Your task to perform on an android device: Clear the shopping cart on newegg. Image 0: 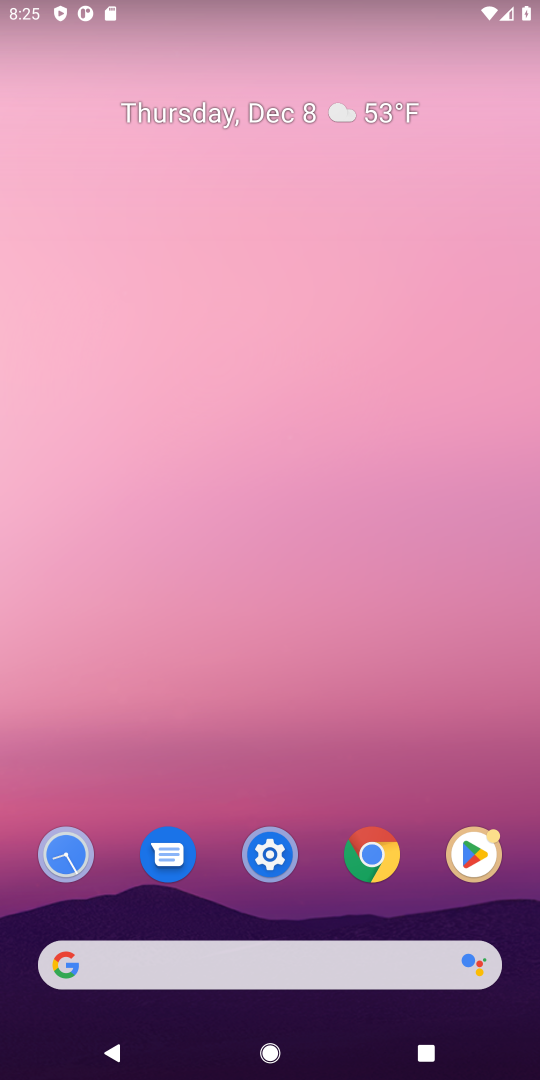
Step 0: press home button
Your task to perform on an android device: Clear the shopping cart on newegg. Image 1: 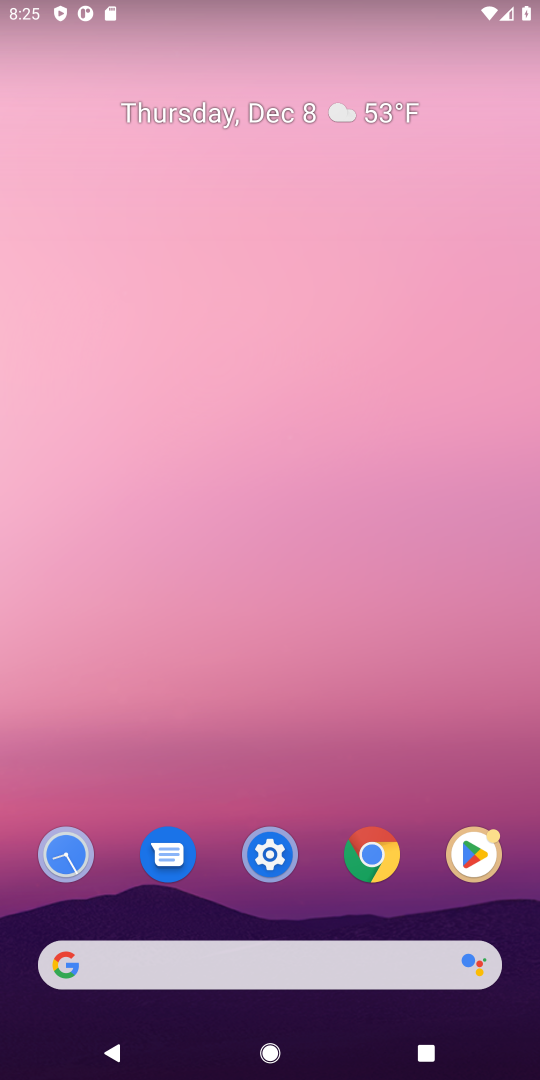
Step 1: click (87, 964)
Your task to perform on an android device: Clear the shopping cart on newegg. Image 2: 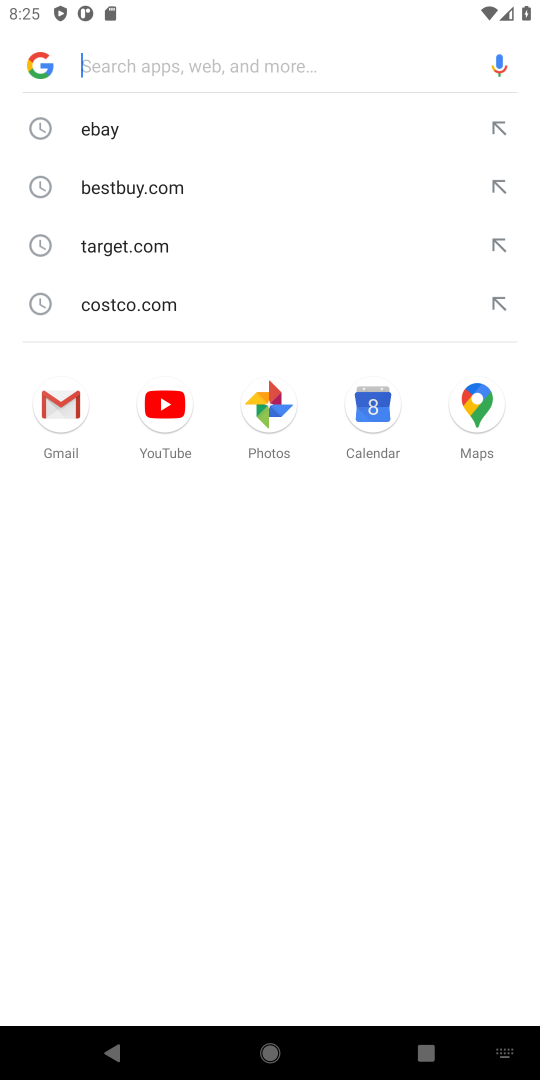
Step 2: type "newegg"
Your task to perform on an android device: Clear the shopping cart on newegg. Image 3: 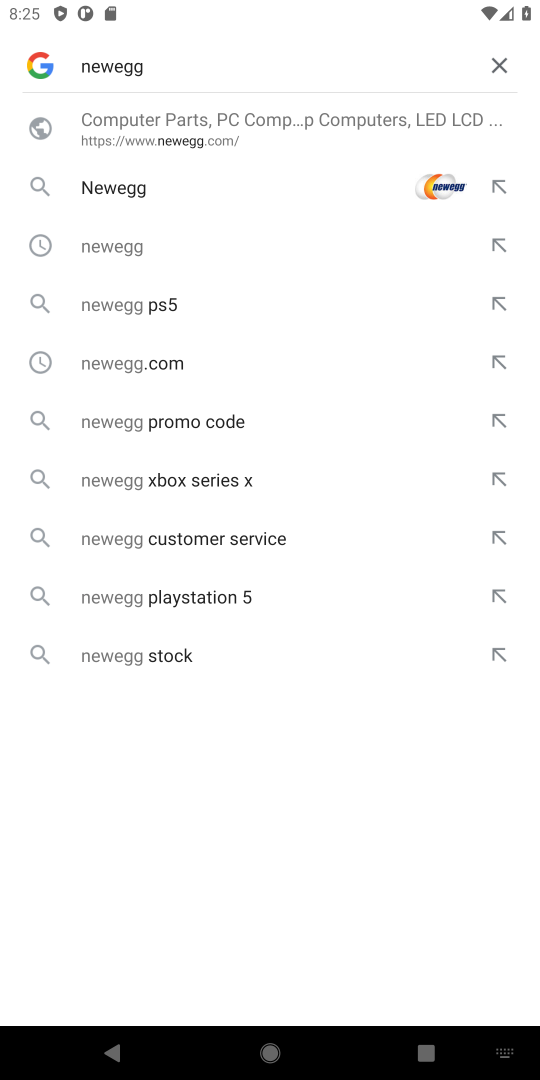
Step 3: press enter
Your task to perform on an android device: Clear the shopping cart on newegg. Image 4: 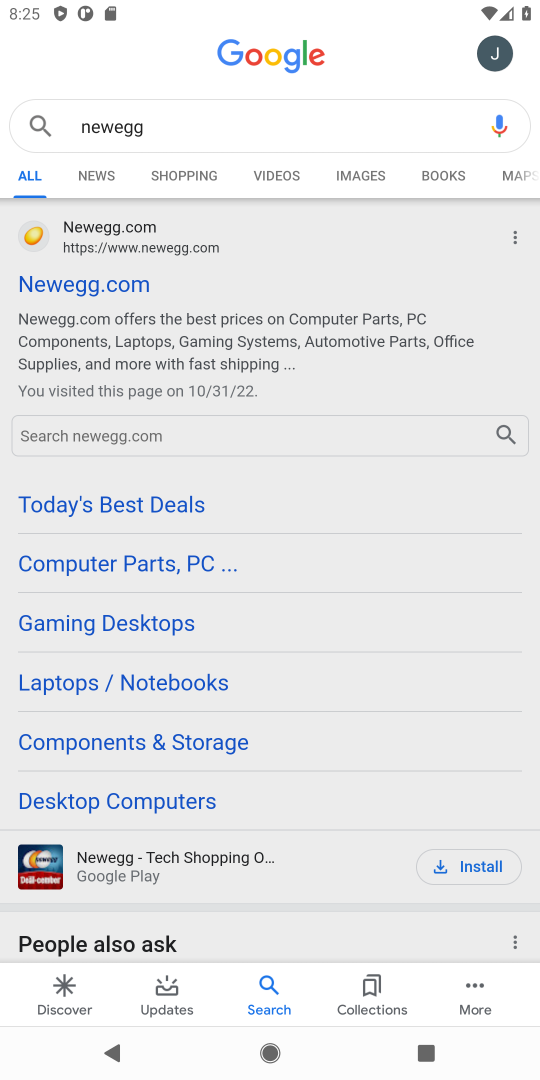
Step 4: click (86, 281)
Your task to perform on an android device: Clear the shopping cart on newegg. Image 5: 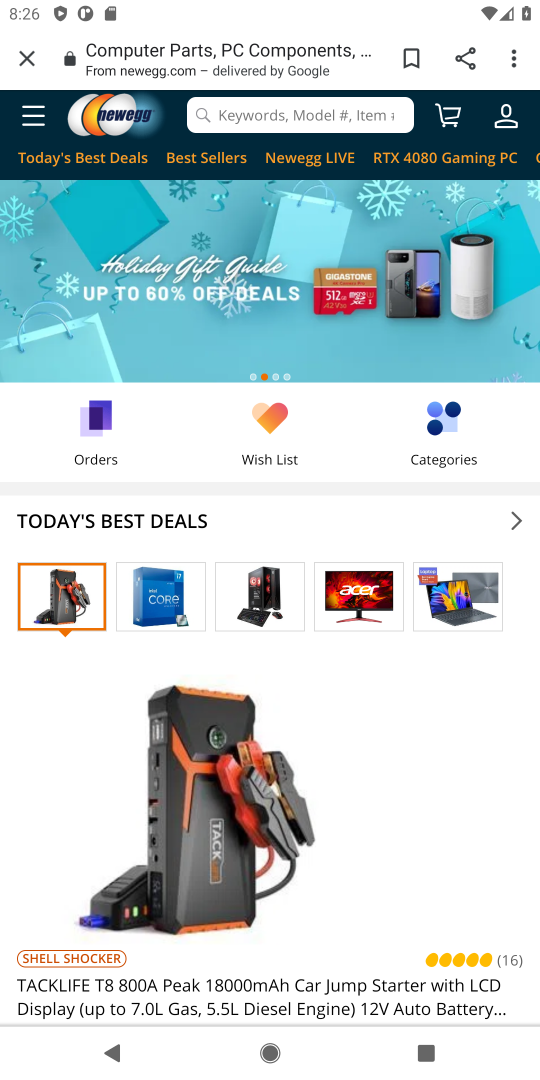
Step 5: click (446, 111)
Your task to perform on an android device: Clear the shopping cart on newegg. Image 6: 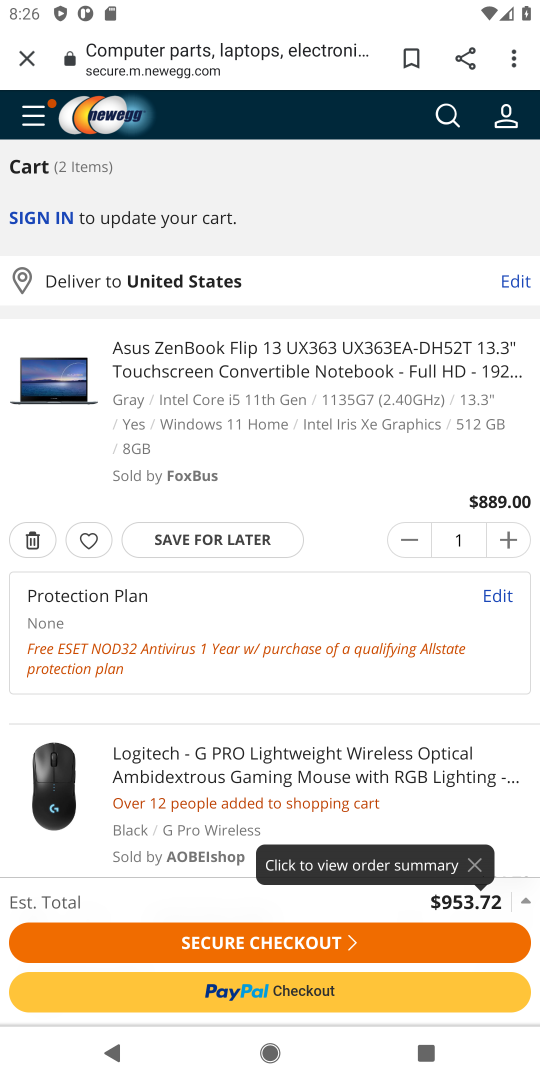
Step 6: click (26, 531)
Your task to perform on an android device: Clear the shopping cart on newegg. Image 7: 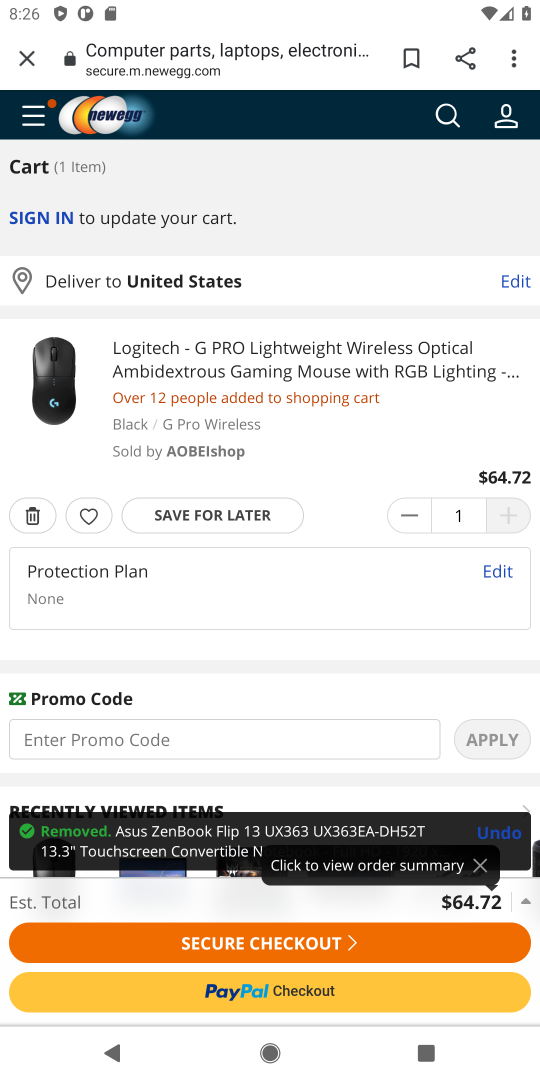
Step 7: click (42, 514)
Your task to perform on an android device: Clear the shopping cart on newegg. Image 8: 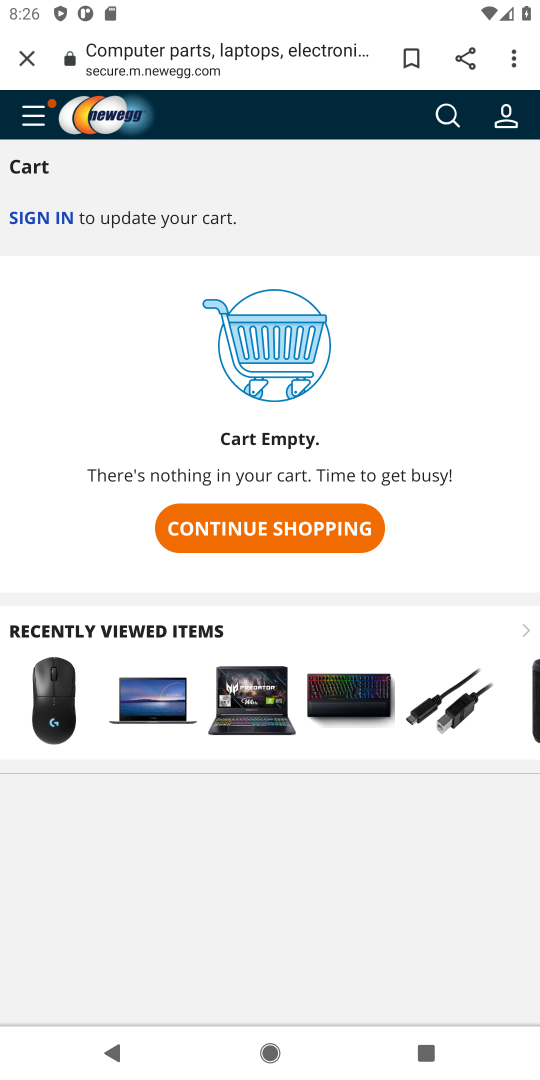
Step 8: task complete